Your task to perform on an android device: Open Wikipedia Image 0: 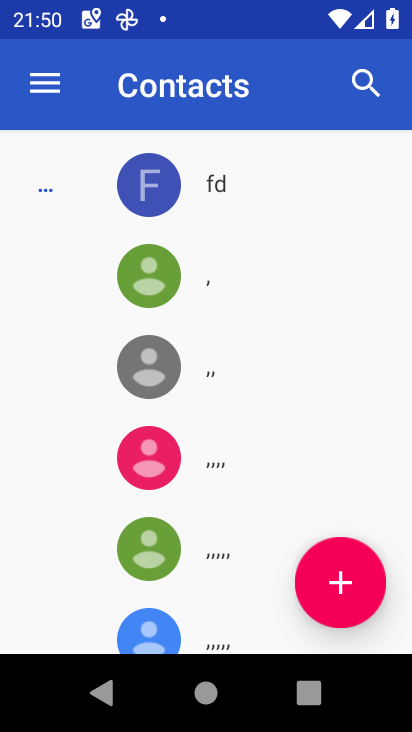
Step 0: press home button
Your task to perform on an android device: Open Wikipedia Image 1: 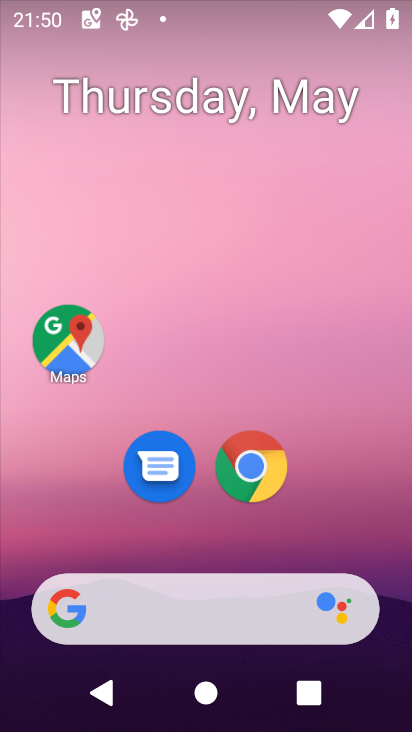
Step 1: click (245, 482)
Your task to perform on an android device: Open Wikipedia Image 2: 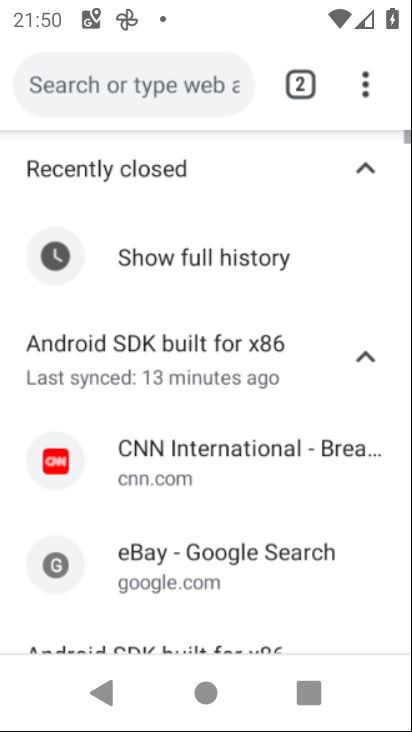
Step 2: click (187, 93)
Your task to perform on an android device: Open Wikipedia Image 3: 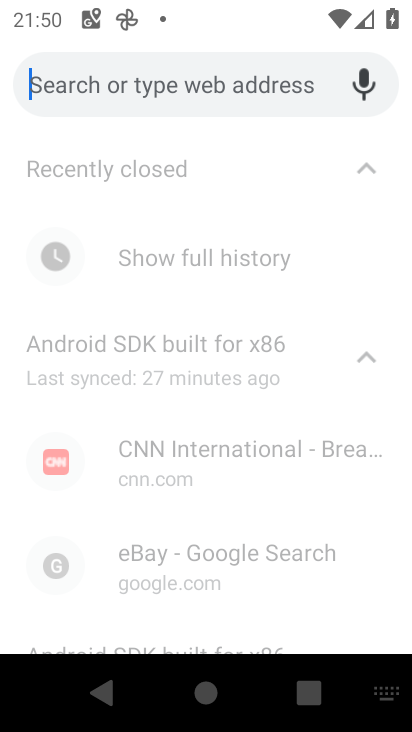
Step 3: type "wikipedia"
Your task to perform on an android device: Open Wikipedia Image 4: 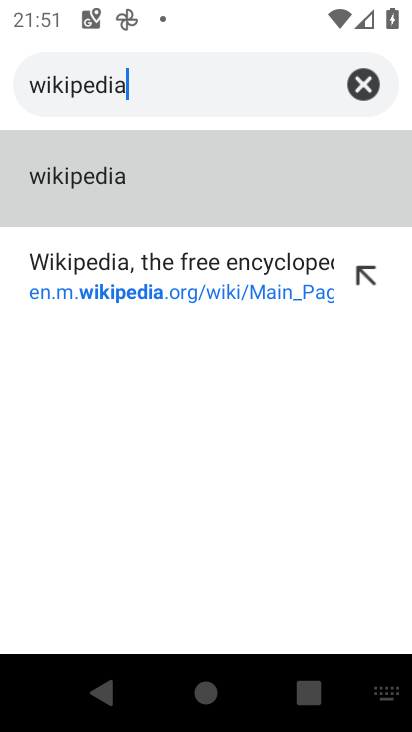
Step 4: click (105, 164)
Your task to perform on an android device: Open Wikipedia Image 5: 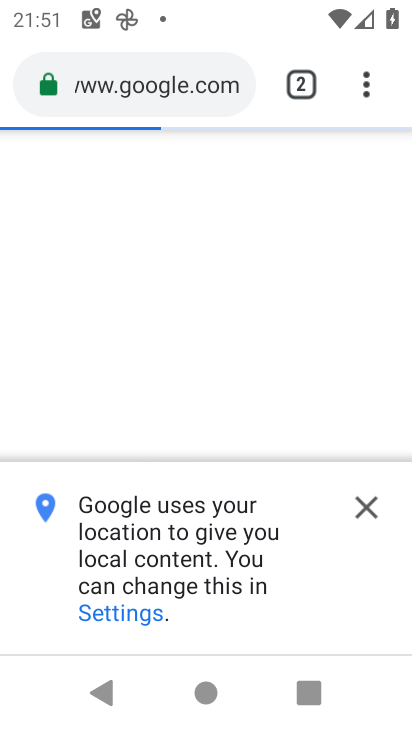
Step 5: task complete